Your task to perform on an android device: Search for Mexican restaurants on Maps Image 0: 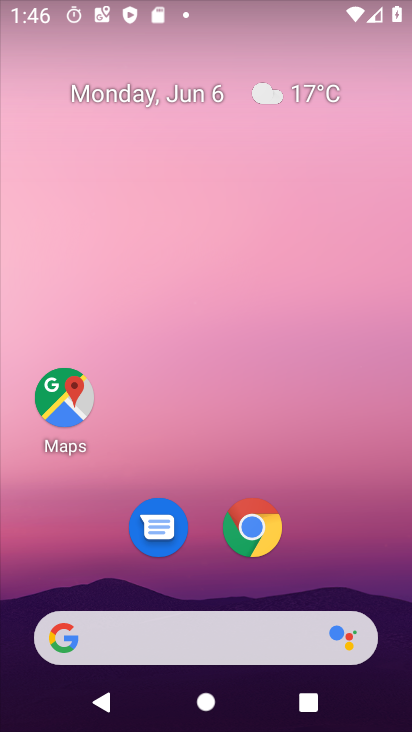
Step 0: drag from (237, 714) to (237, 129)
Your task to perform on an android device: Search for Mexican restaurants on Maps Image 1: 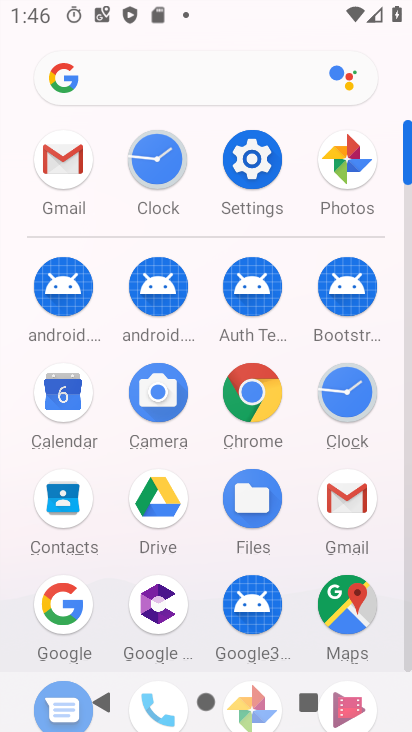
Step 1: click (351, 606)
Your task to perform on an android device: Search for Mexican restaurants on Maps Image 2: 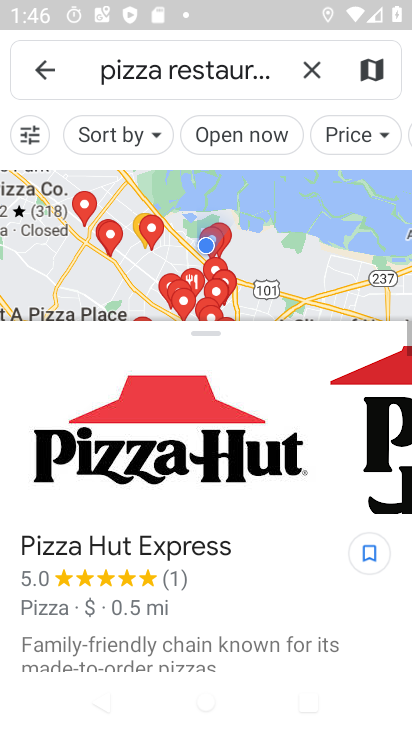
Step 2: click (303, 70)
Your task to perform on an android device: Search for Mexican restaurants on Maps Image 3: 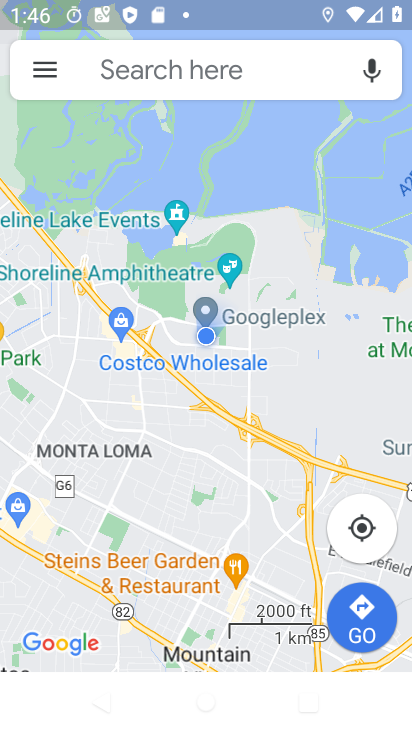
Step 3: click (225, 66)
Your task to perform on an android device: Search for Mexican restaurants on Maps Image 4: 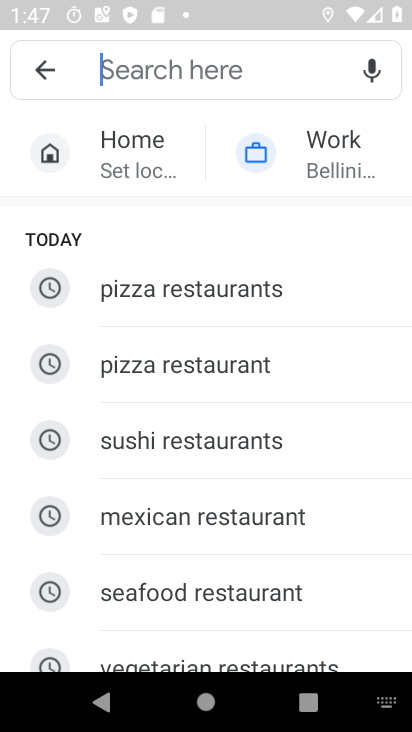
Step 4: type "Mexican restaurants"
Your task to perform on an android device: Search for Mexican restaurants on Maps Image 5: 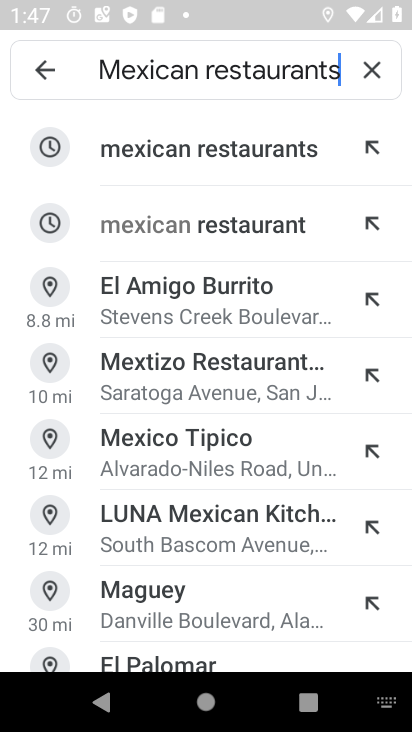
Step 5: click (264, 151)
Your task to perform on an android device: Search for Mexican restaurants on Maps Image 6: 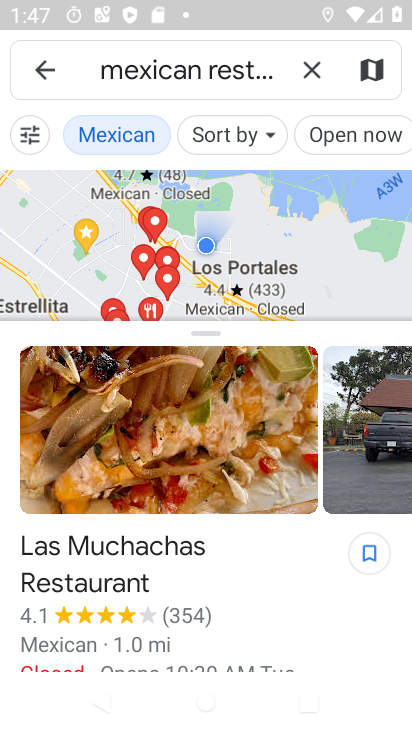
Step 6: task complete